Your task to perform on an android device: Do I have any events this weekend? Image 0: 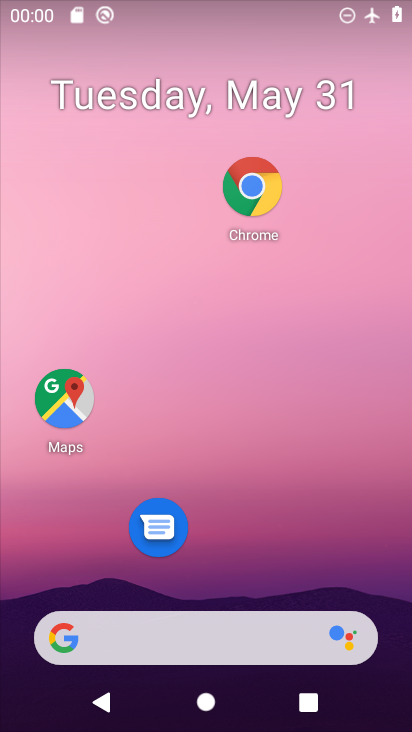
Step 0: drag from (297, 465) to (336, 261)
Your task to perform on an android device: Do I have any events this weekend? Image 1: 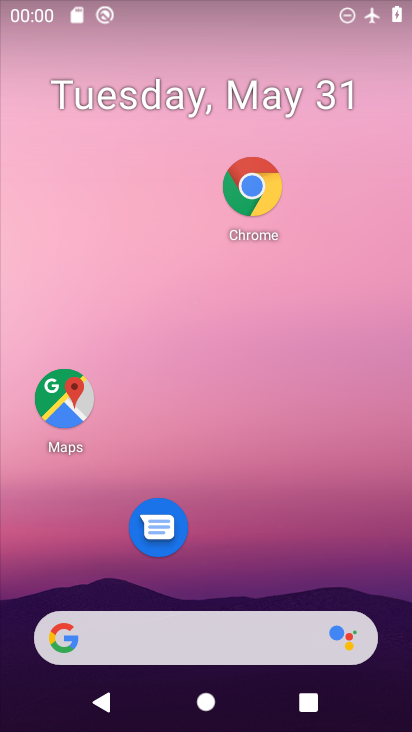
Step 1: drag from (293, 586) to (347, 245)
Your task to perform on an android device: Do I have any events this weekend? Image 2: 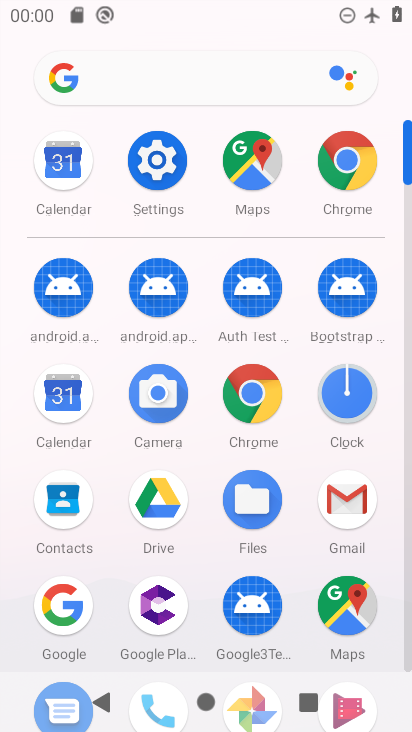
Step 2: click (83, 394)
Your task to perform on an android device: Do I have any events this weekend? Image 3: 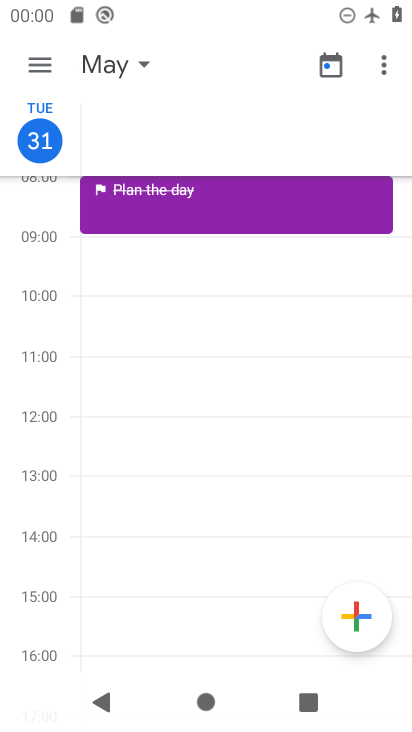
Step 3: click (48, 69)
Your task to perform on an android device: Do I have any events this weekend? Image 4: 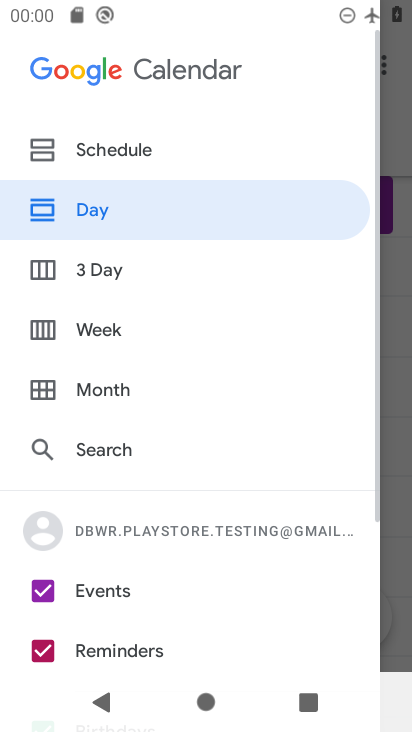
Step 4: click (119, 322)
Your task to perform on an android device: Do I have any events this weekend? Image 5: 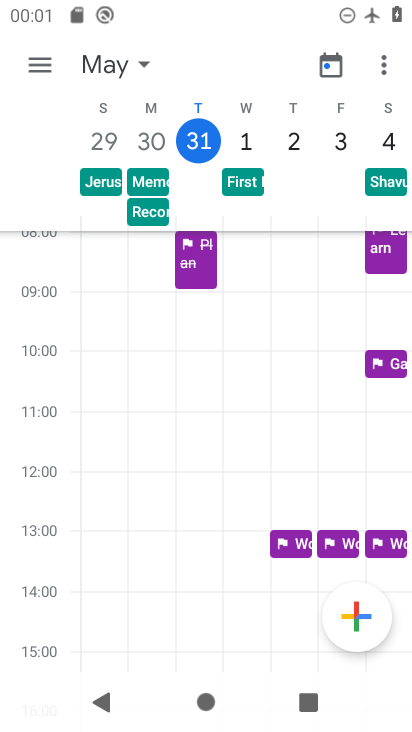
Step 5: task complete